Your task to perform on an android device: Is it going to rain this weekend? Image 0: 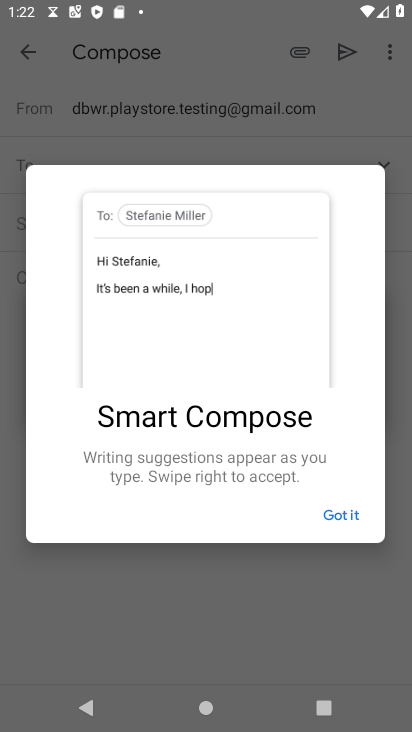
Step 0: press home button
Your task to perform on an android device: Is it going to rain this weekend? Image 1: 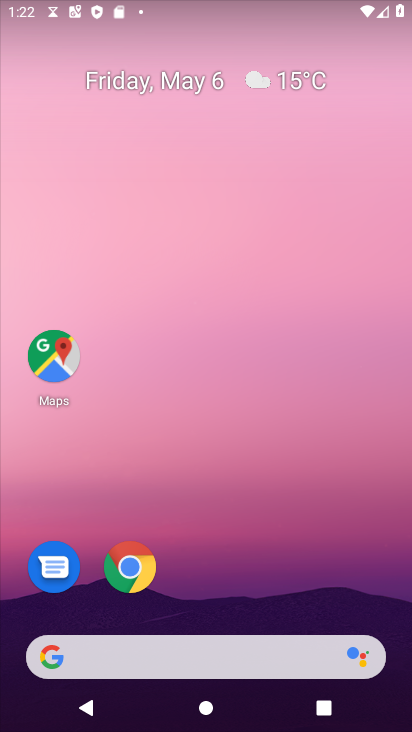
Step 1: click (292, 77)
Your task to perform on an android device: Is it going to rain this weekend? Image 2: 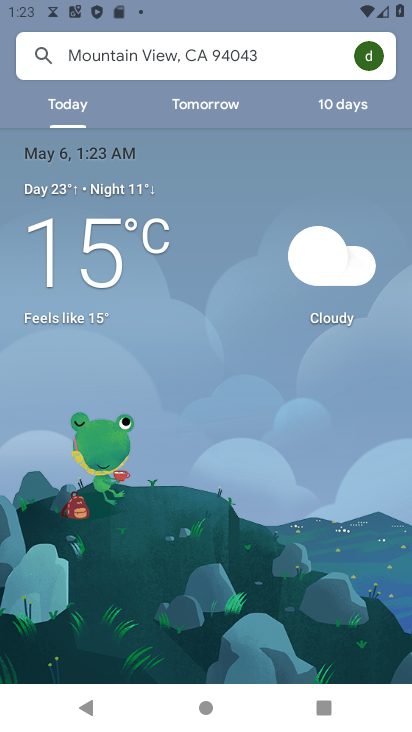
Step 2: task complete